Your task to perform on an android device: Go to network settings Image 0: 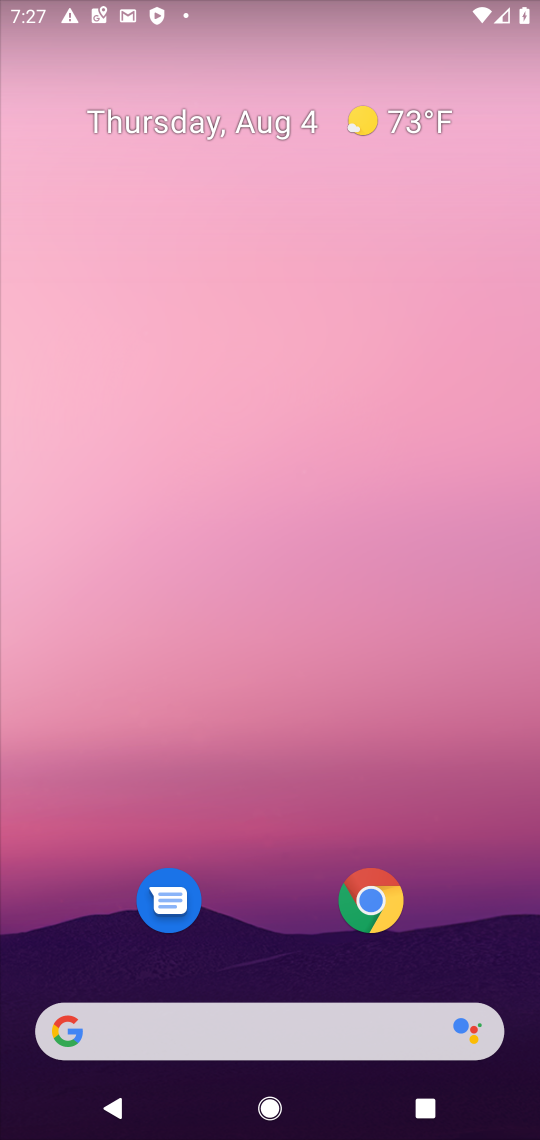
Step 0: drag from (217, 1042) to (344, 173)
Your task to perform on an android device: Go to network settings Image 1: 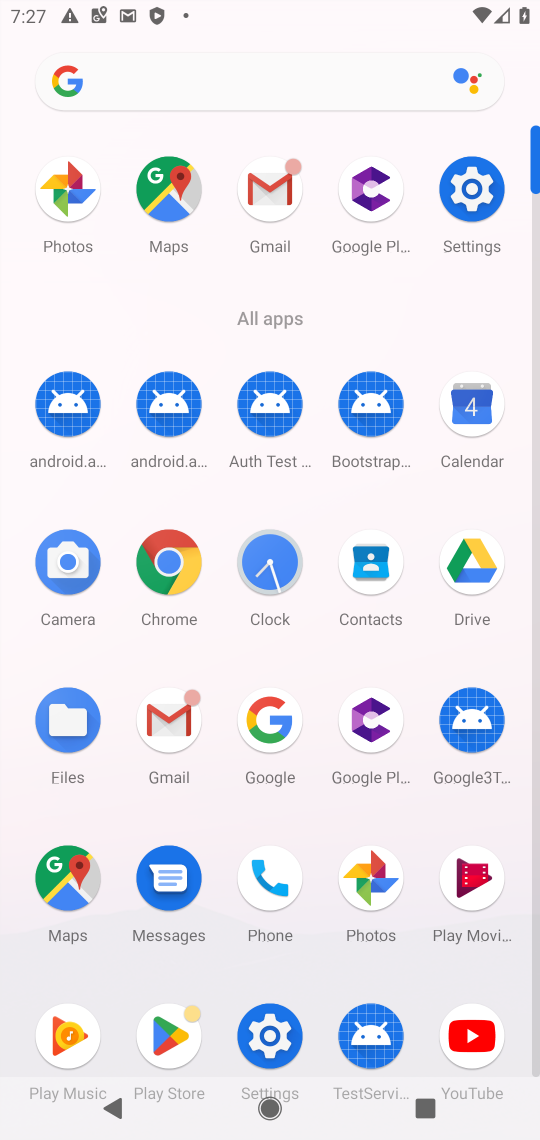
Step 1: click (462, 187)
Your task to perform on an android device: Go to network settings Image 2: 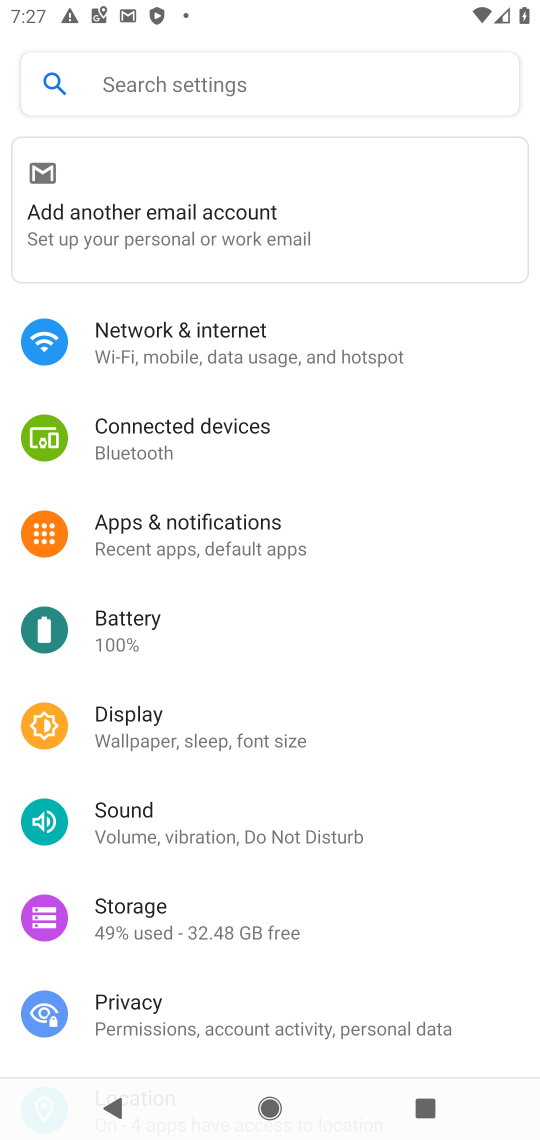
Step 2: click (233, 344)
Your task to perform on an android device: Go to network settings Image 3: 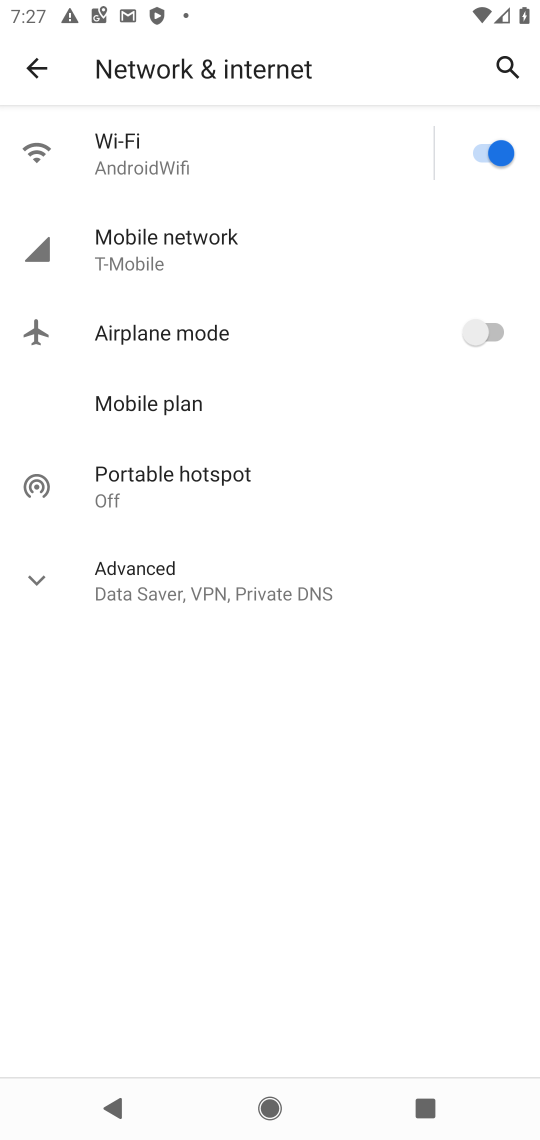
Step 3: task complete